Your task to perform on an android device: Search for vegetarian restaurants on Maps Image 0: 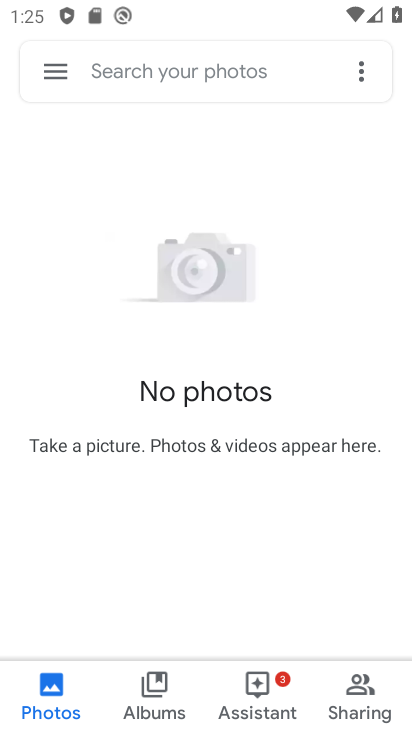
Step 0: press home button
Your task to perform on an android device: Search for vegetarian restaurants on Maps Image 1: 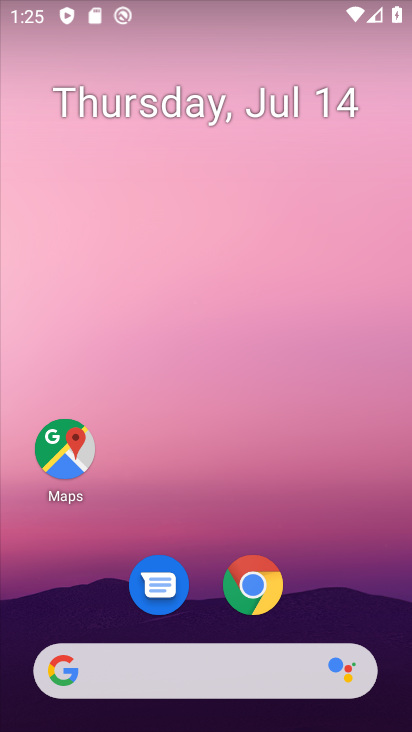
Step 1: click (67, 454)
Your task to perform on an android device: Search for vegetarian restaurants on Maps Image 2: 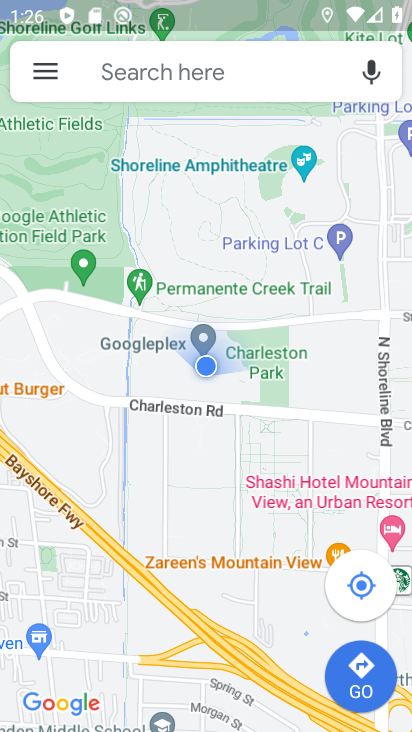
Step 2: click (182, 75)
Your task to perform on an android device: Search for vegetarian restaurants on Maps Image 3: 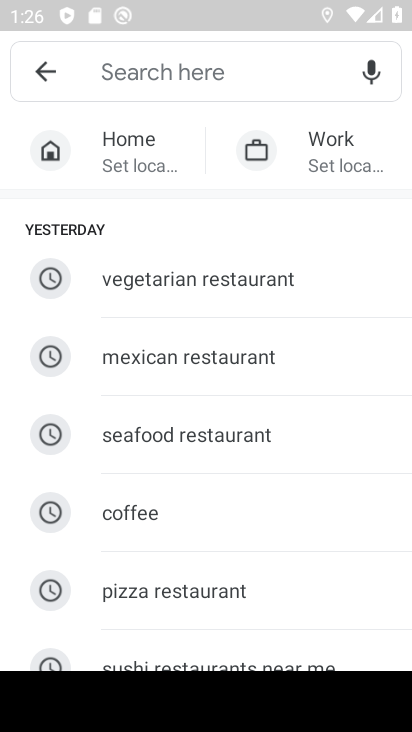
Step 3: click (221, 272)
Your task to perform on an android device: Search for vegetarian restaurants on Maps Image 4: 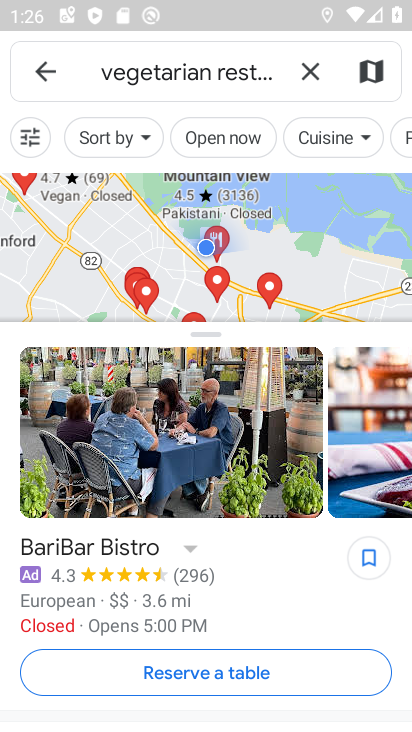
Step 4: task complete